Your task to perform on an android device: change the clock style Image 0: 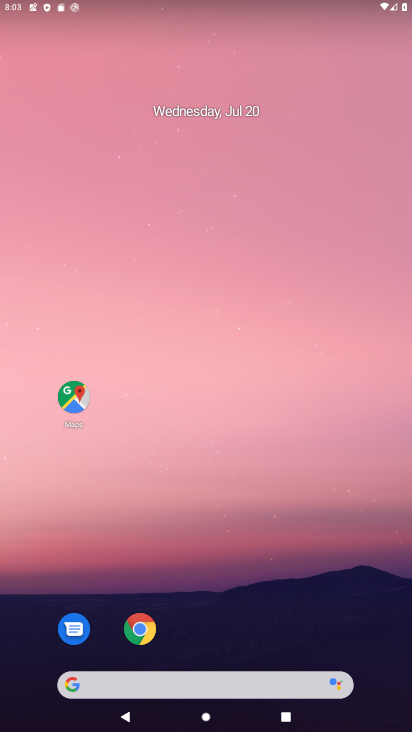
Step 0: drag from (323, 611) to (283, 15)
Your task to perform on an android device: change the clock style Image 1: 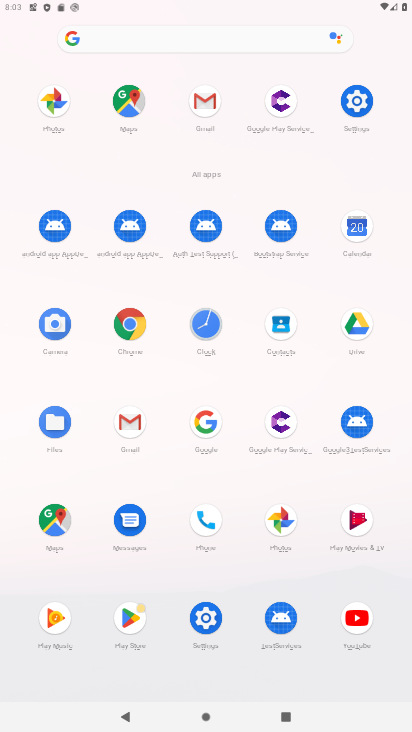
Step 1: click (211, 323)
Your task to perform on an android device: change the clock style Image 2: 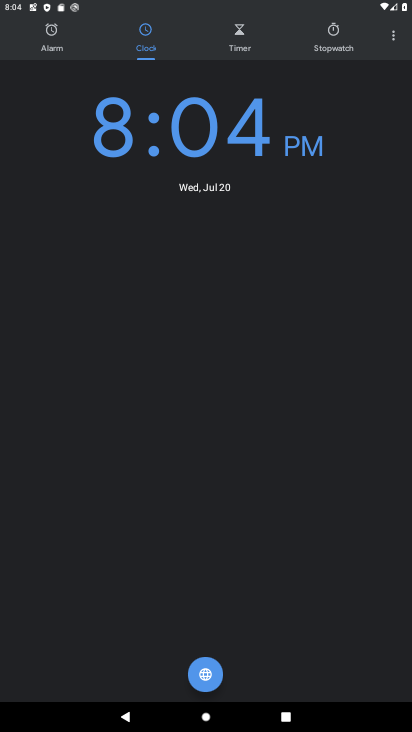
Step 2: click (391, 37)
Your task to perform on an android device: change the clock style Image 3: 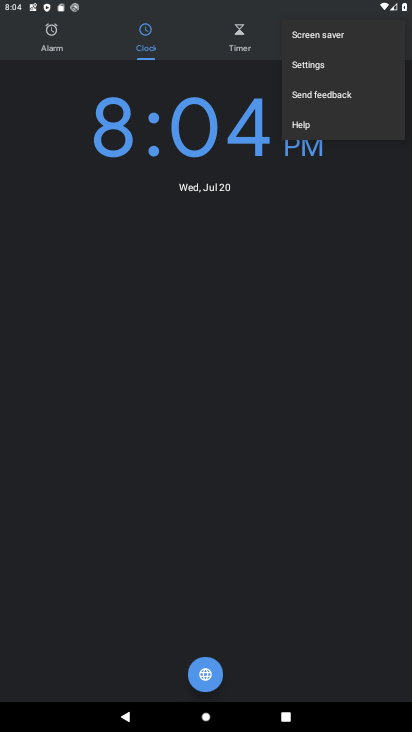
Step 3: click (327, 63)
Your task to perform on an android device: change the clock style Image 4: 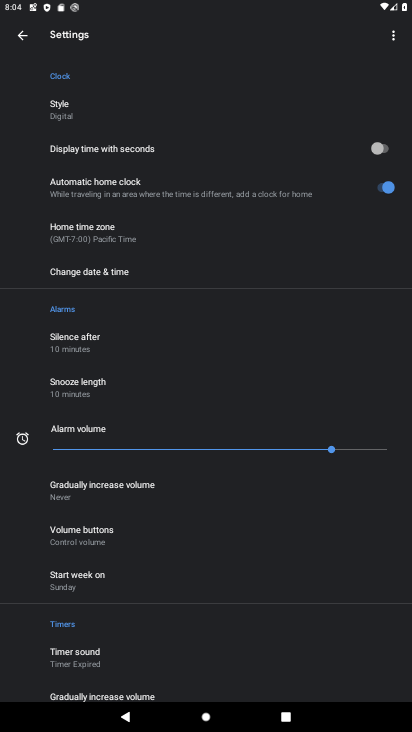
Step 4: click (155, 109)
Your task to perform on an android device: change the clock style Image 5: 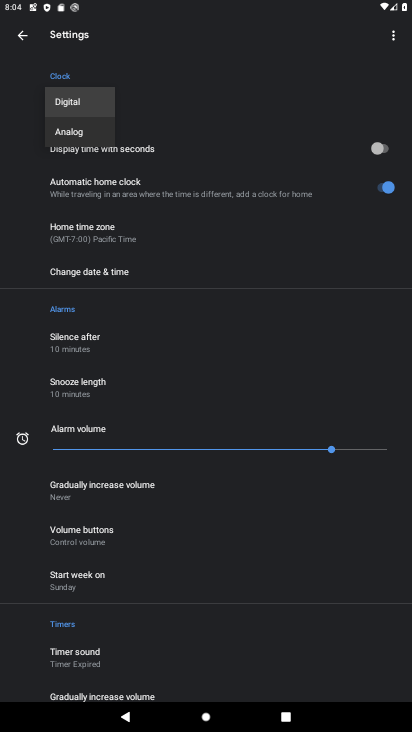
Step 5: click (99, 128)
Your task to perform on an android device: change the clock style Image 6: 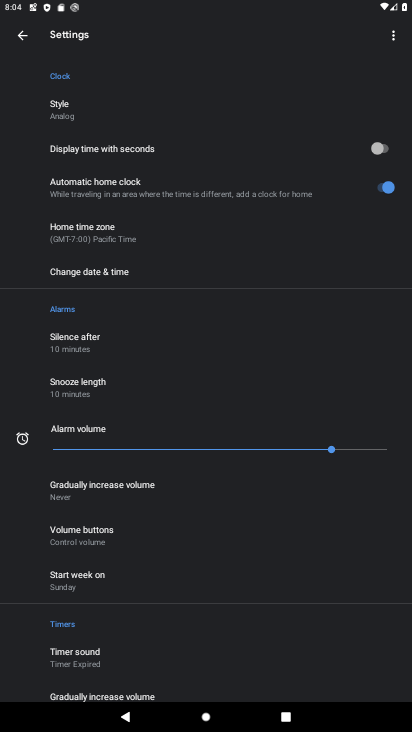
Step 6: task complete